Your task to perform on an android device: delete the emails in spam in the gmail app Image 0: 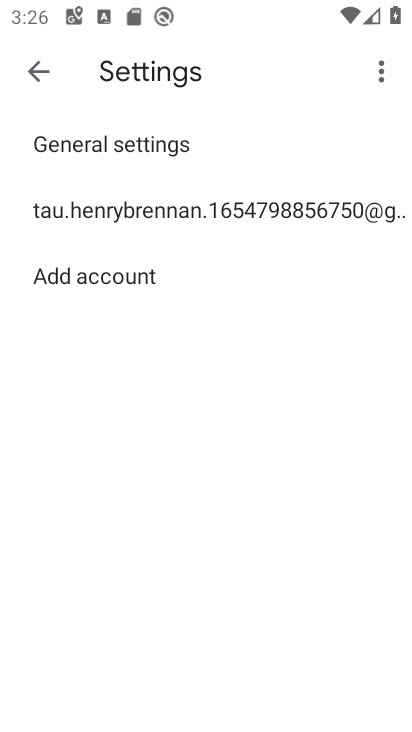
Step 0: press home button
Your task to perform on an android device: delete the emails in spam in the gmail app Image 1: 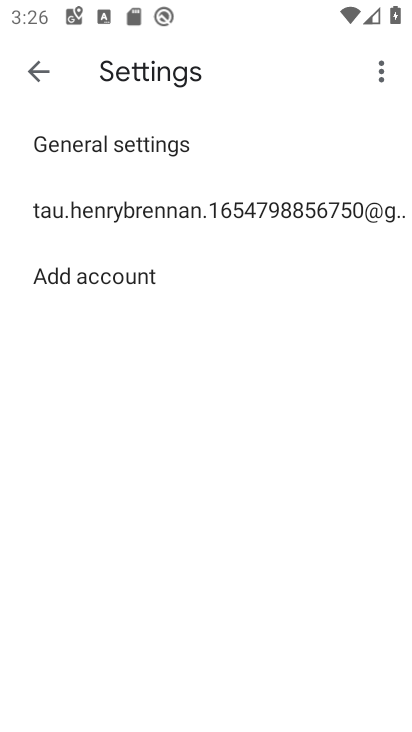
Step 1: press home button
Your task to perform on an android device: delete the emails in spam in the gmail app Image 2: 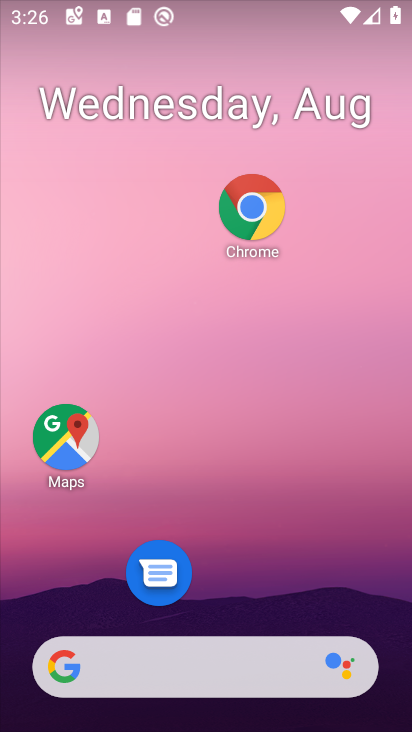
Step 2: drag from (278, 550) to (316, 21)
Your task to perform on an android device: delete the emails in spam in the gmail app Image 3: 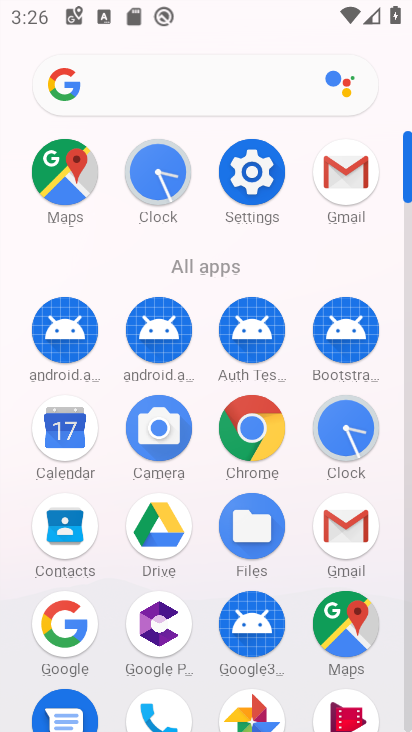
Step 3: click (345, 183)
Your task to perform on an android device: delete the emails in spam in the gmail app Image 4: 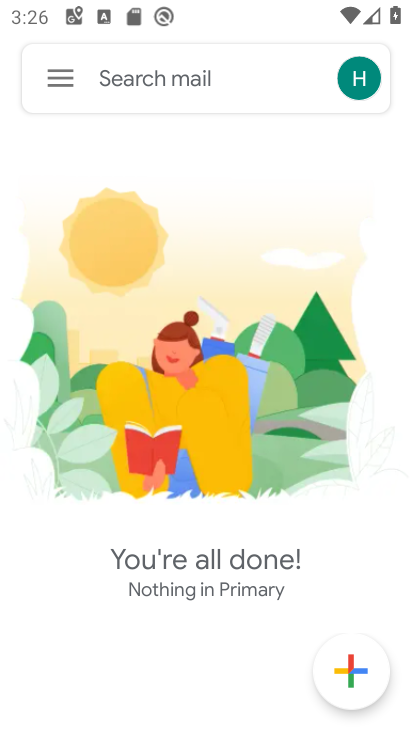
Step 4: click (61, 78)
Your task to perform on an android device: delete the emails in spam in the gmail app Image 5: 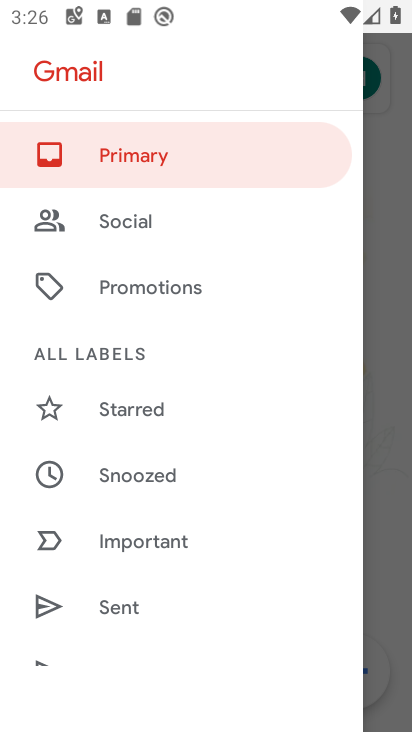
Step 5: drag from (211, 591) to (307, 0)
Your task to perform on an android device: delete the emails in spam in the gmail app Image 6: 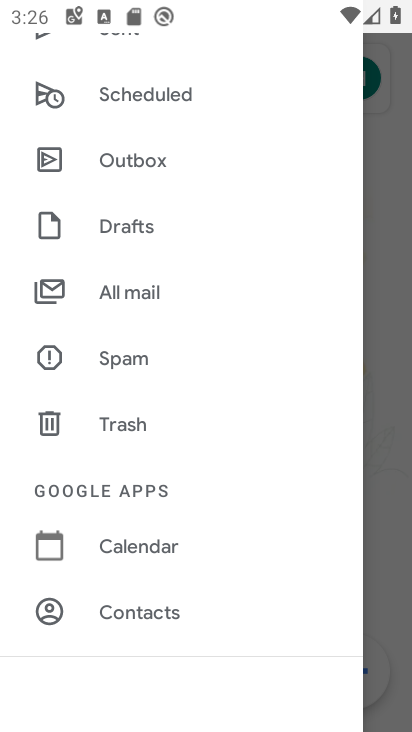
Step 6: click (125, 353)
Your task to perform on an android device: delete the emails in spam in the gmail app Image 7: 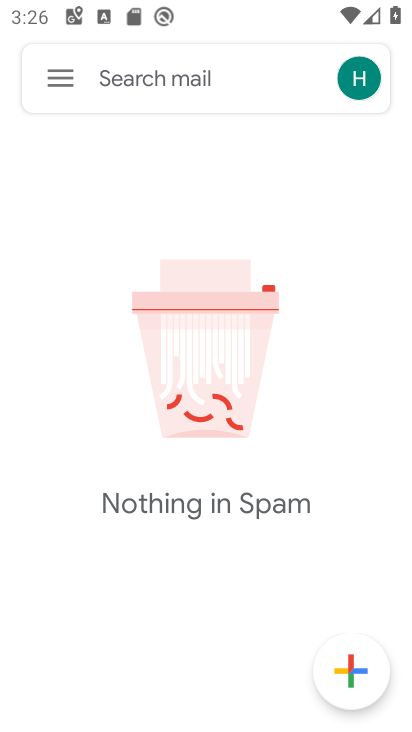
Step 7: task complete